Your task to perform on an android device: Do I have any events today? Image 0: 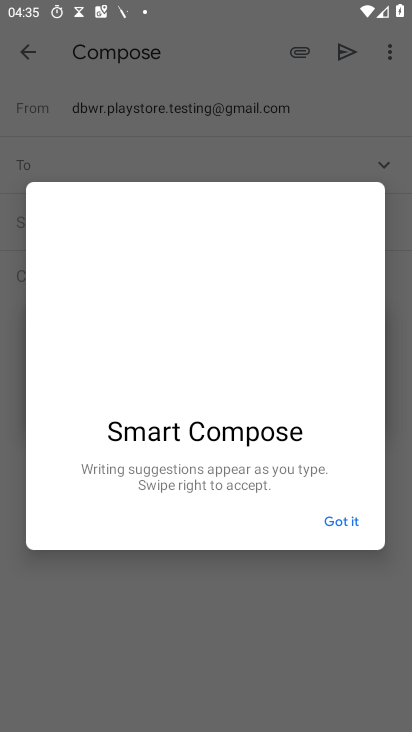
Step 0: press home button
Your task to perform on an android device: Do I have any events today? Image 1: 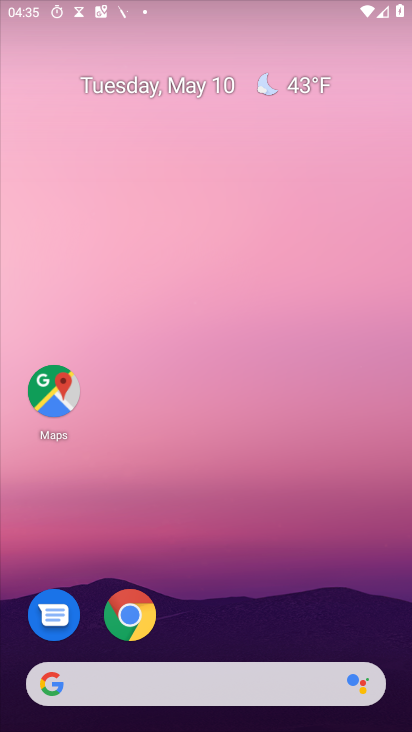
Step 1: drag from (286, 691) to (222, 3)
Your task to perform on an android device: Do I have any events today? Image 2: 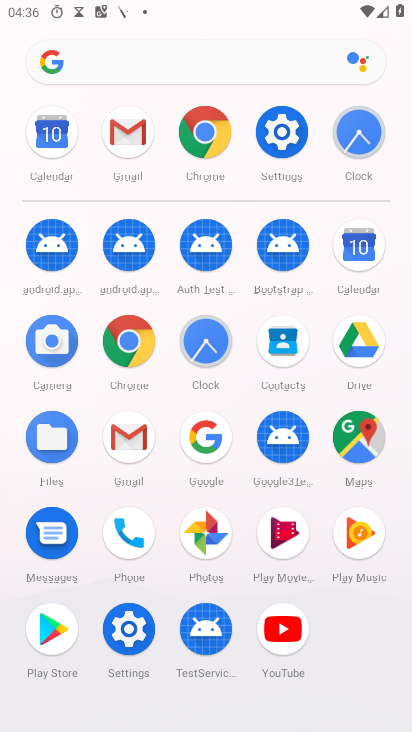
Step 2: click (369, 242)
Your task to perform on an android device: Do I have any events today? Image 3: 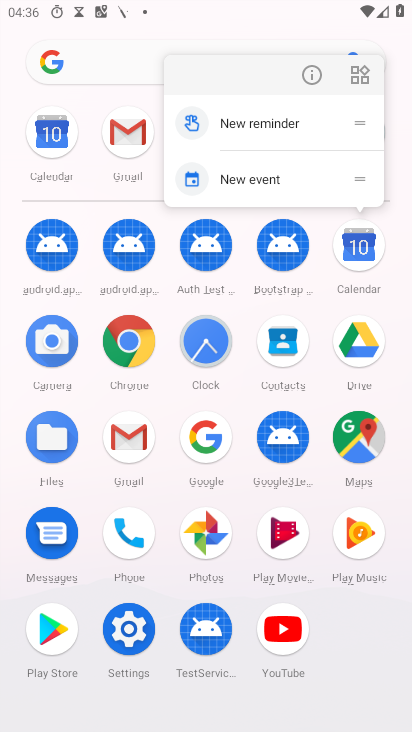
Step 3: click (365, 257)
Your task to perform on an android device: Do I have any events today? Image 4: 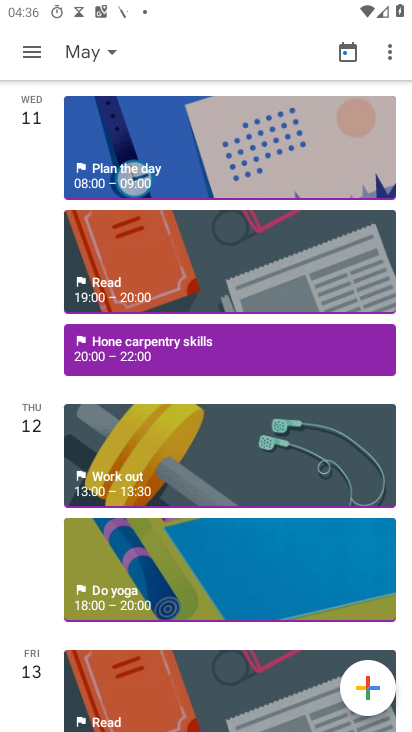
Step 4: click (105, 52)
Your task to perform on an android device: Do I have any events today? Image 5: 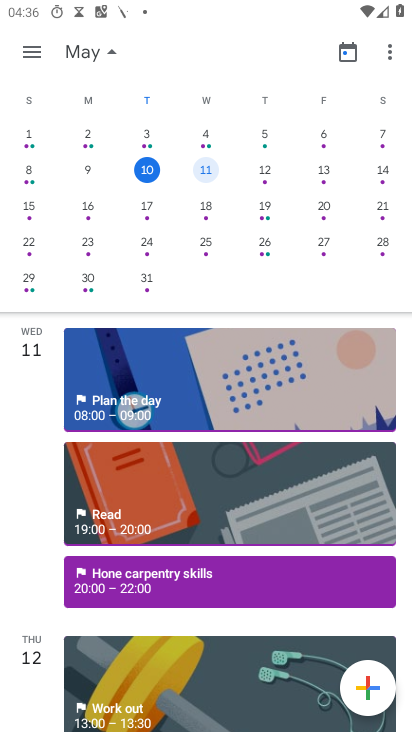
Step 5: click (154, 166)
Your task to perform on an android device: Do I have any events today? Image 6: 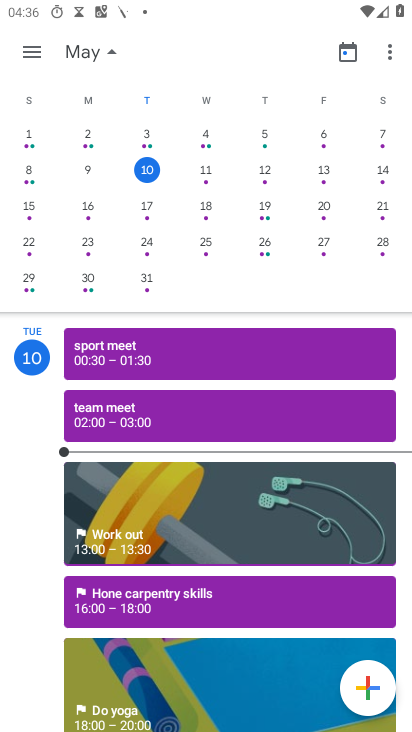
Step 6: task complete